Your task to perform on an android device: Open Amazon Image 0: 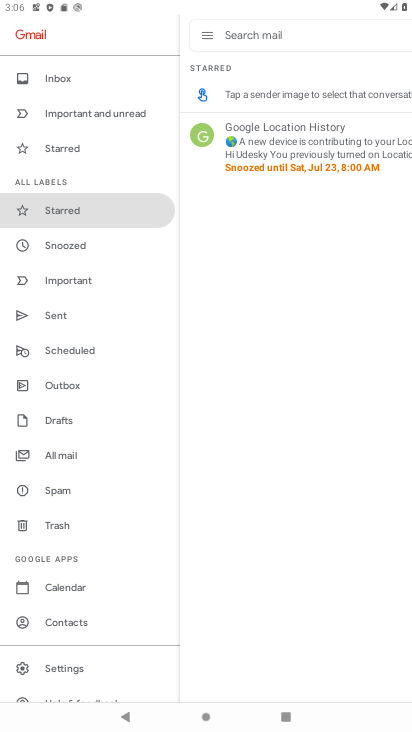
Step 0: press home button
Your task to perform on an android device: Open Amazon Image 1: 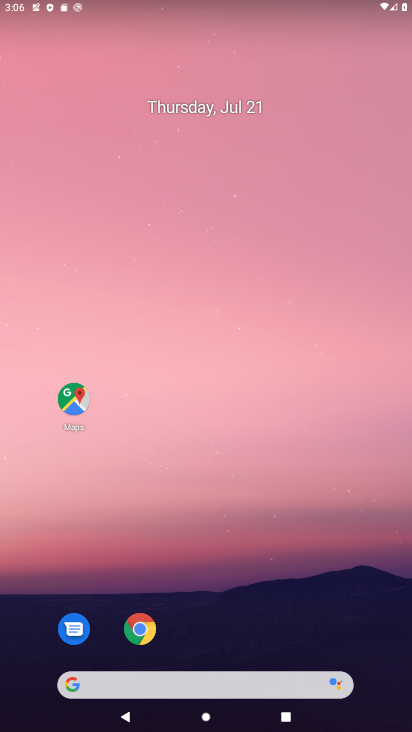
Step 1: drag from (383, 657) to (318, 2)
Your task to perform on an android device: Open Amazon Image 2: 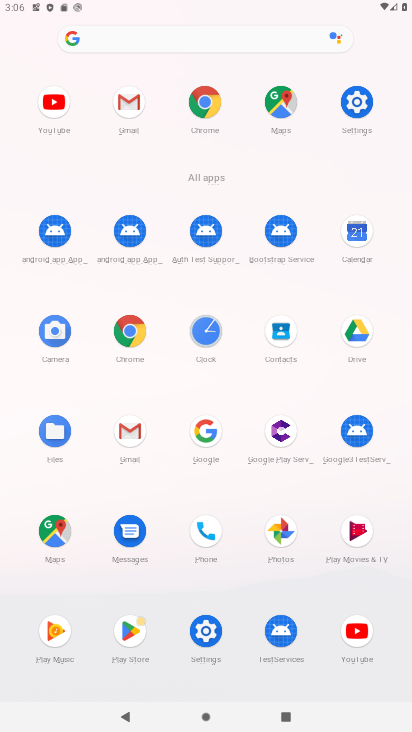
Step 2: click (130, 325)
Your task to perform on an android device: Open Amazon Image 3: 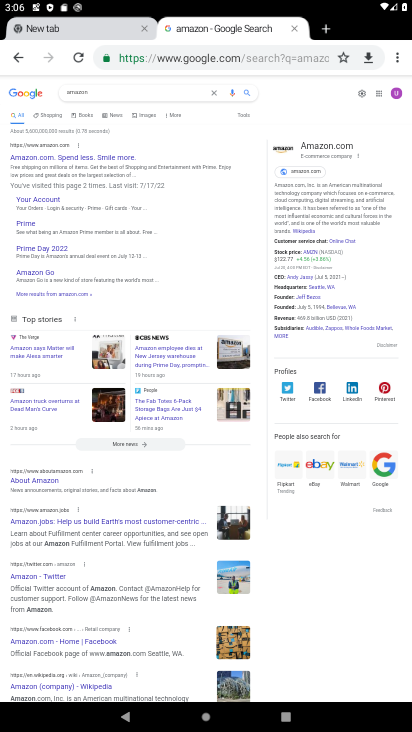
Step 3: click (319, 53)
Your task to perform on an android device: Open Amazon Image 4: 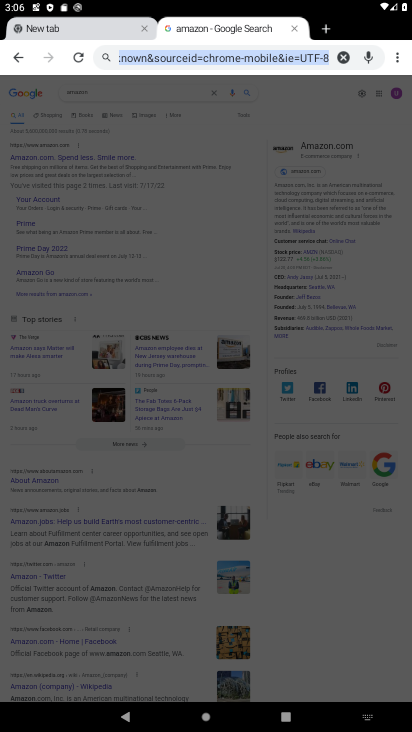
Step 4: click (343, 61)
Your task to perform on an android device: Open Amazon Image 5: 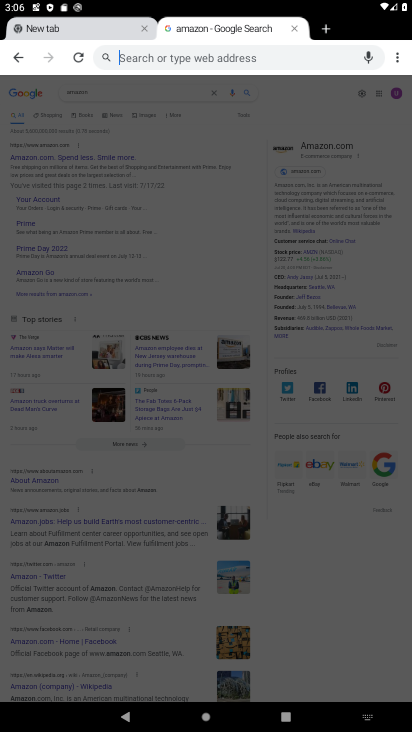
Step 5: type "Amazon"
Your task to perform on an android device: Open Amazon Image 6: 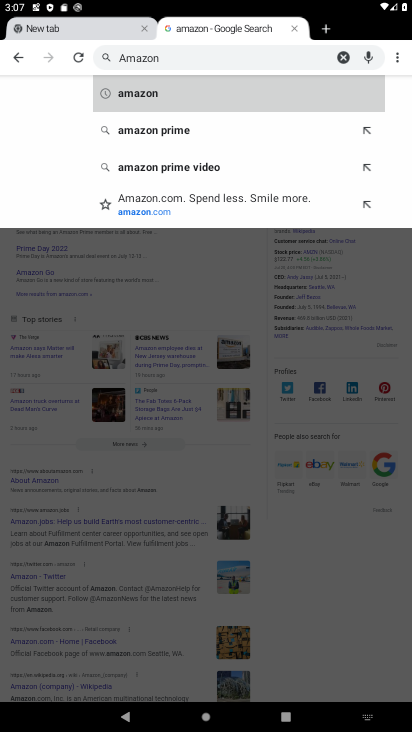
Step 6: click (130, 97)
Your task to perform on an android device: Open Amazon Image 7: 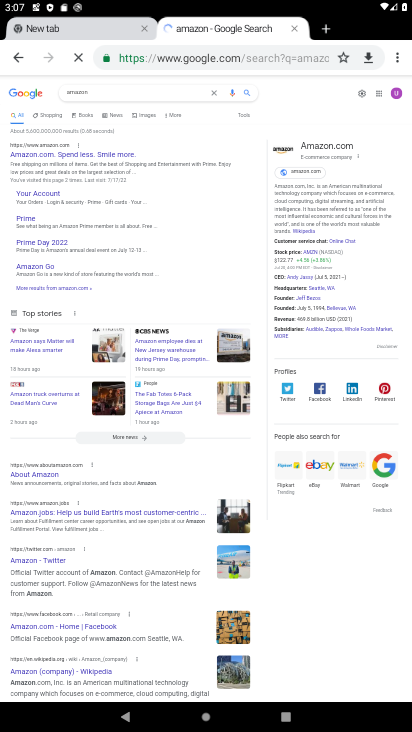
Step 7: task complete